Your task to perform on an android device: What's the weather going to be tomorrow? Image 0: 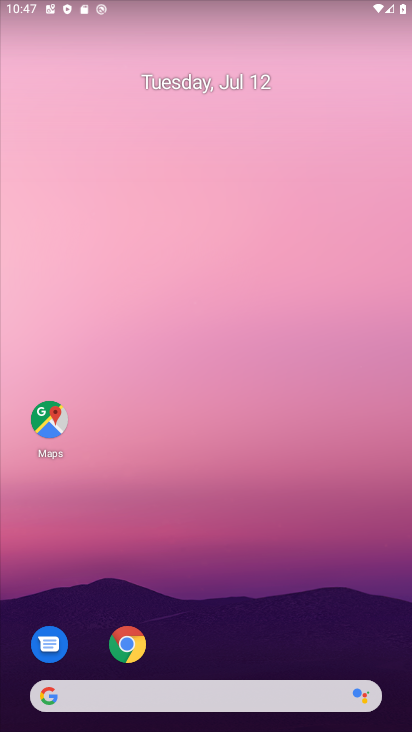
Step 0: drag from (242, 645) to (208, 80)
Your task to perform on an android device: What's the weather going to be tomorrow? Image 1: 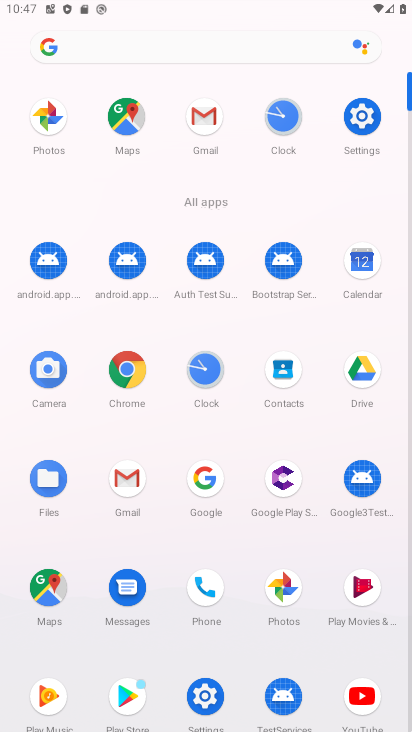
Step 1: click (111, 359)
Your task to perform on an android device: What's the weather going to be tomorrow? Image 2: 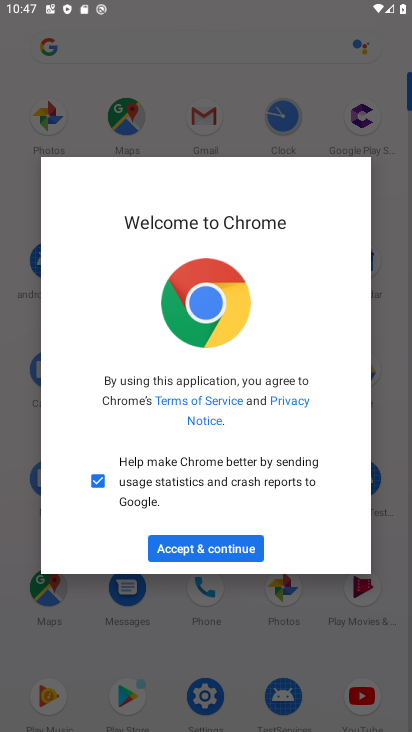
Step 2: click (230, 541)
Your task to perform on an android device: What's the weather going to be tomorrow? Image 3: 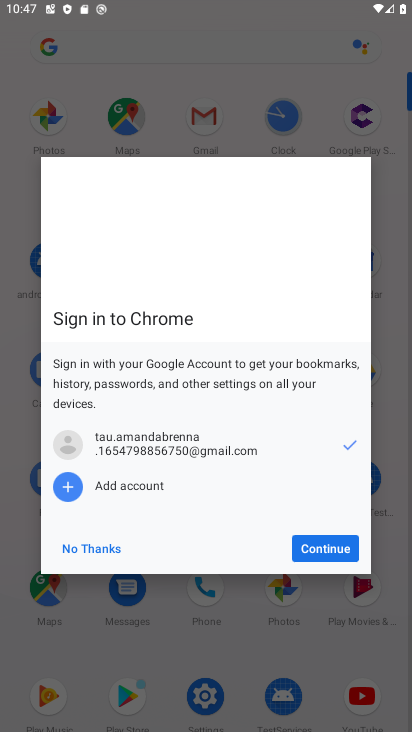
Step 3: click (354, 556)
Your task to perform on an android device: What's the weather going to be tomorrow? Image 4: 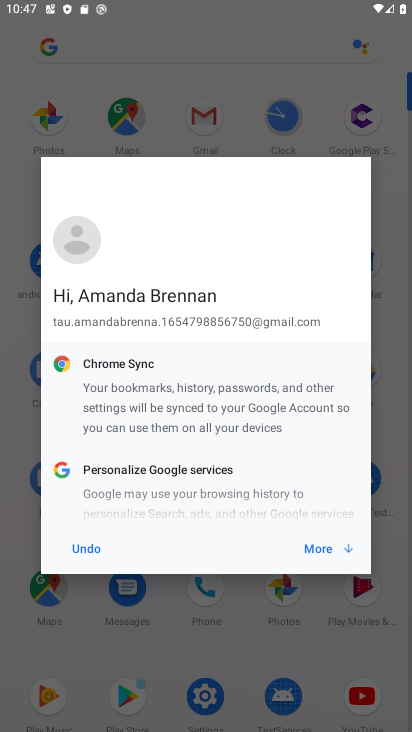
Step 4: click (339, 548)
Your task to perform on an android device: What's the weather going to be tomorrow? Image 5: 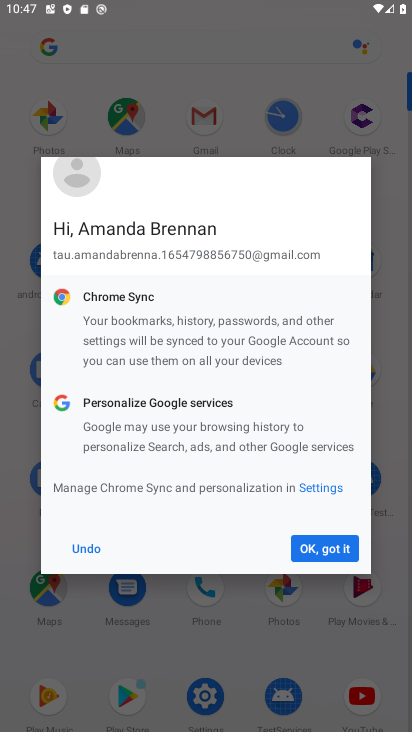
Step 5: click (339, 548)
Your task to perform on an android device: What's the weather going to be tomorrow? Image 6: 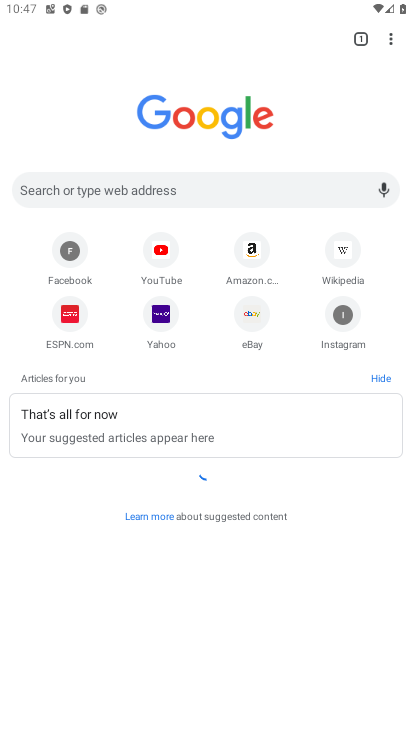
Step 6: click (178, 195)
Your task to perform on an android device: What's the weather going to be tomorrow? Image 7: 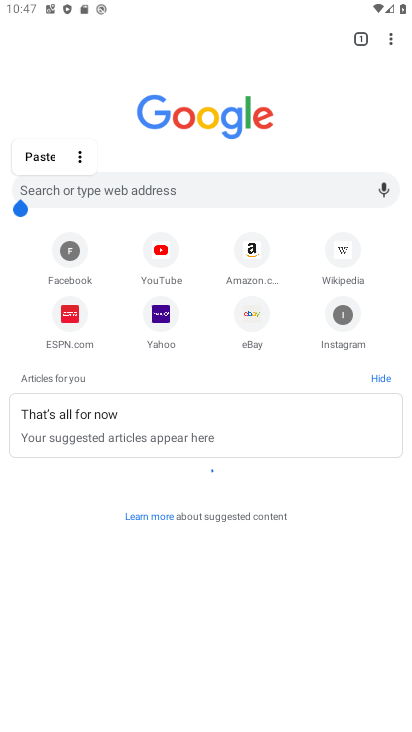
Step 7: type "What's the weather going to be tomorrow?"
Your task to perform on an android device: What's the weather going to be tomorrow? Image 8: 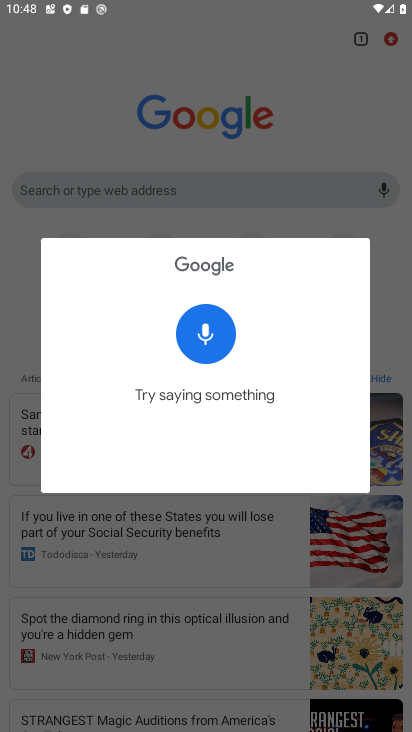
Step 8: click (334, 183)
Your task to perform on an android device: What's the weather going to be tomorrow? Image 9: 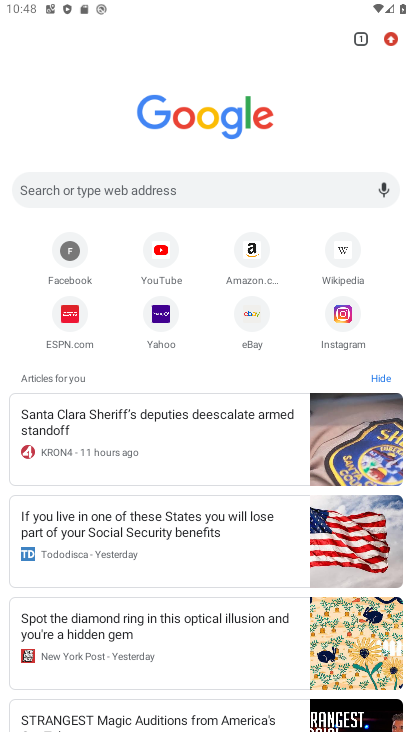
Step 9: click (318, 203)
Your task to perform on an android device: What's the weather going to be tomorrow? Image 10: 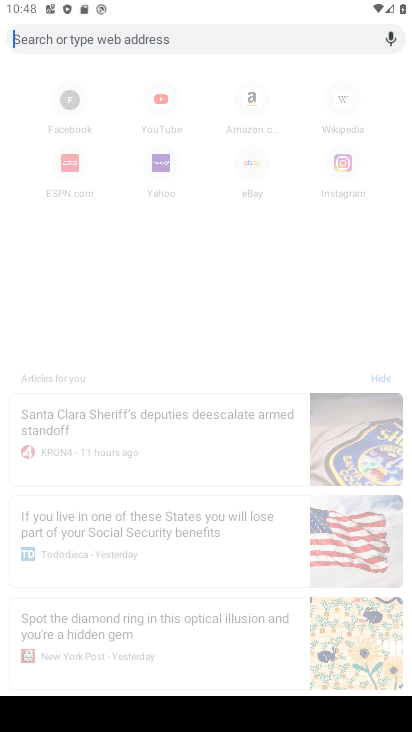
Step 10: type "What's the weather going to be tomorrow?"
Your task to perform on an android device: What's the weather going to be tomorrow? Image 11: 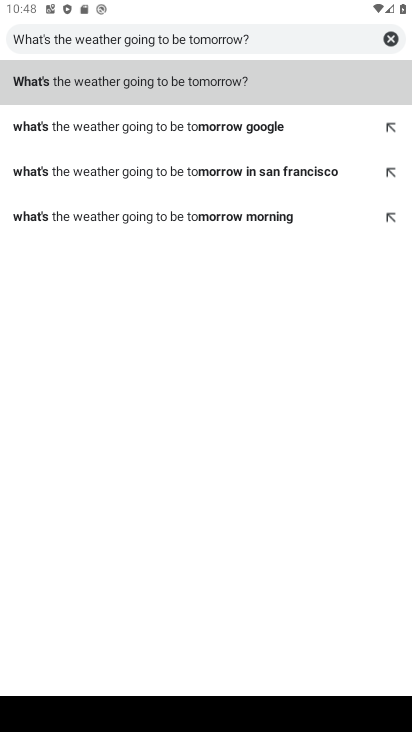
Step 11: click (163, 68)
Your task to perform on an android device: What's the weather going to be tomorrow? Image 12: 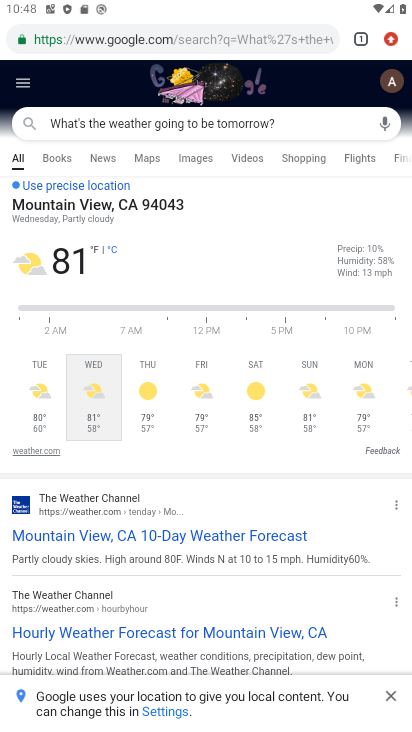
Step 12: task complete